Your task to perform on an android device: turn off javascript in the chrome app Image 0: 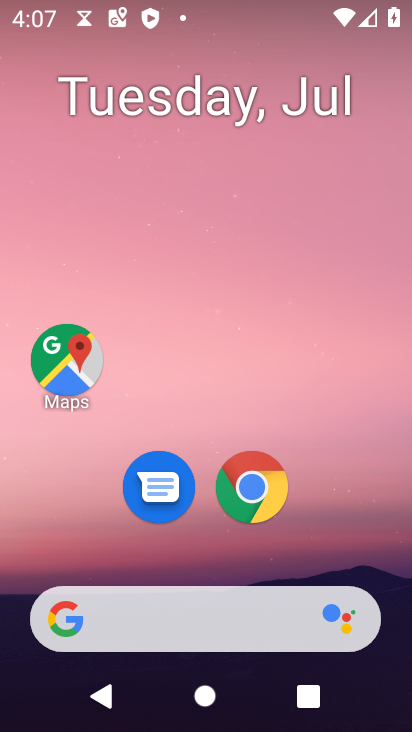
Step 0: click (261, 463)
Your task to perform on an android device: turn off javascript in the chrome app Image 1: 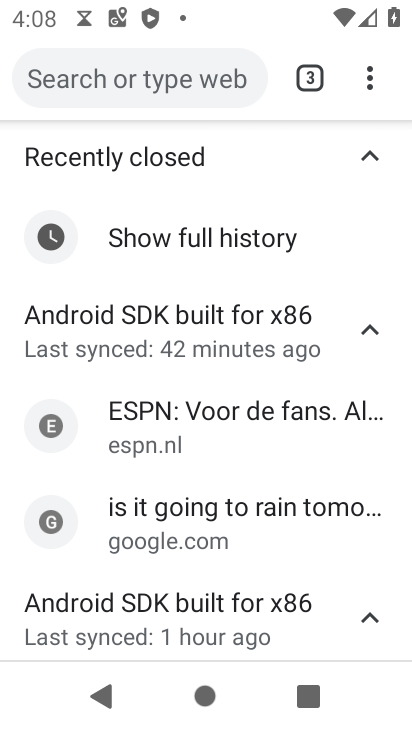
Step 1: drag from (373, 68) to (75, 547)
Your task to perform on an android device: turn off javascript in the chrome app Image 2: 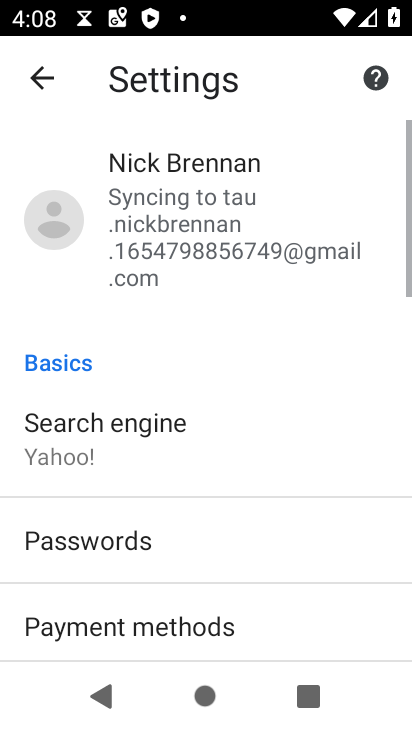
Step 2: drag from (179, 590) to (267, 51)
Your task to perform on an android device: turn off javascript in the chrome app Image 3: 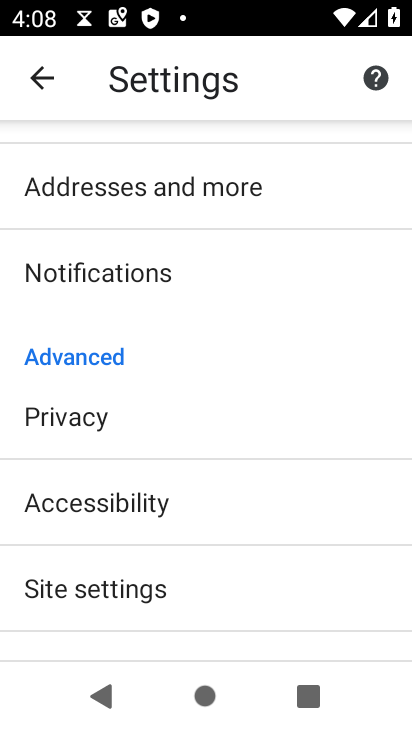
Step 3: drag from (157, 593) to (223, 140)
Your task to perform on an android device: turn off javascript in the chrome app Image 4: 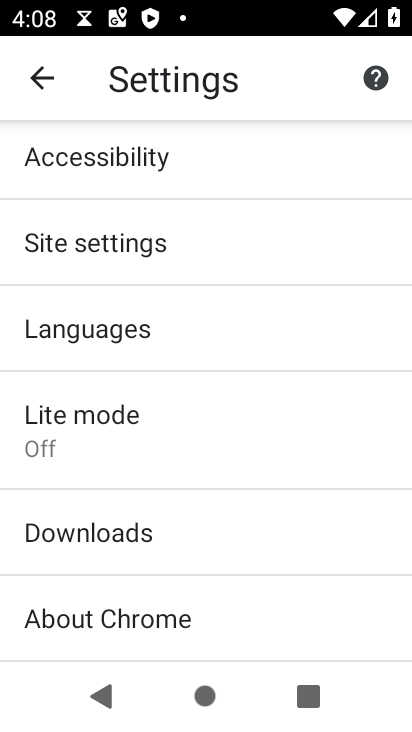
Step 4: click (105, 240)
Your task to perform on an android device: turn off javascript in the chrome app Image 5: 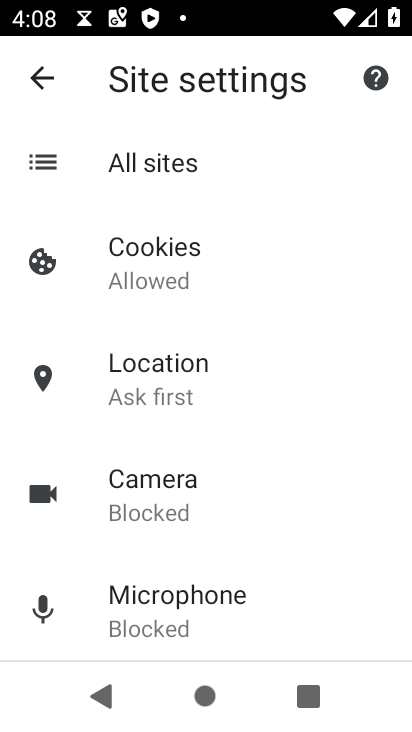
Step 5: drag from (139, 568) to (244, 92)
Your task to perform on an android device: turn off javascript in the chrome app Image 6: 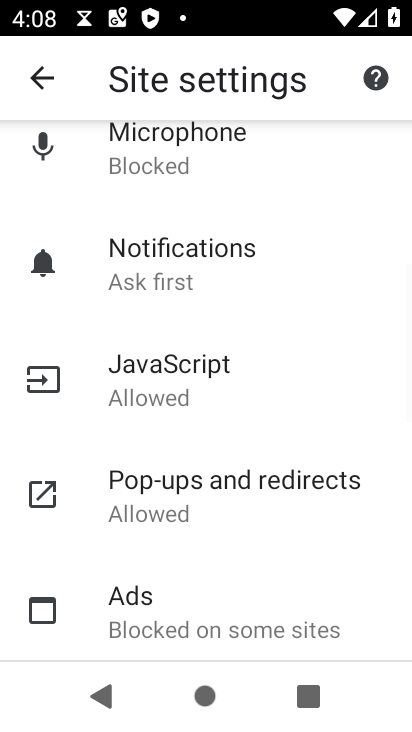
Step 6: click (160, 385)
Your task to perform on an android device: turn off javascript in the chrome app Image 7: 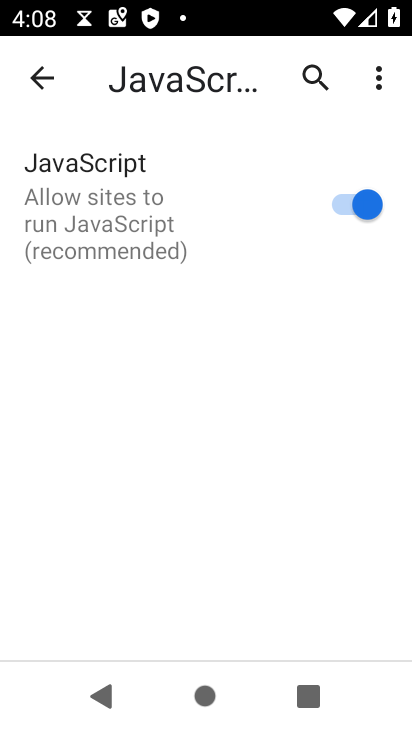
Step 7: click (366, 195)
Your task to perform on an android device: turn off javascript in the chrome app Image 8: 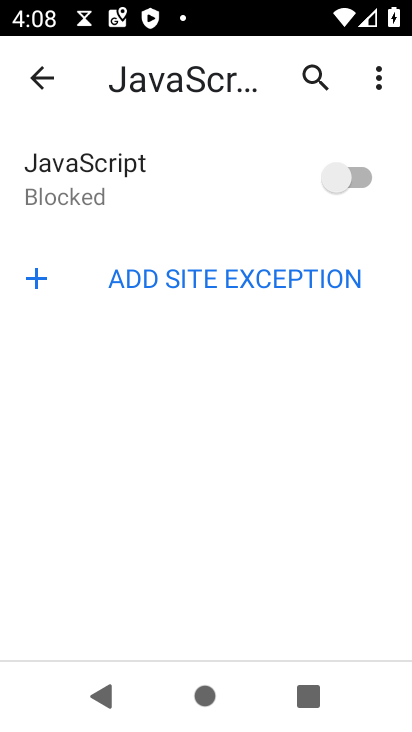
Step 8: task complete